Your task to perform on an android device: What's on my calendar today? Image 0: 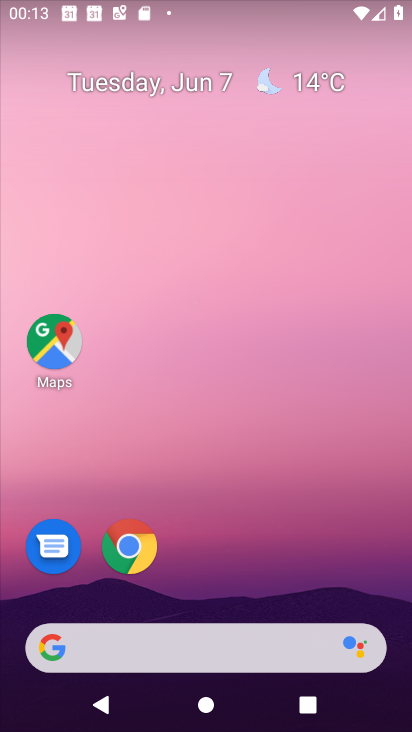
Step 0: drag from (198, 588) to (296, 24)
Your task to perform on an android device: What's on my calendar today? Image 1: 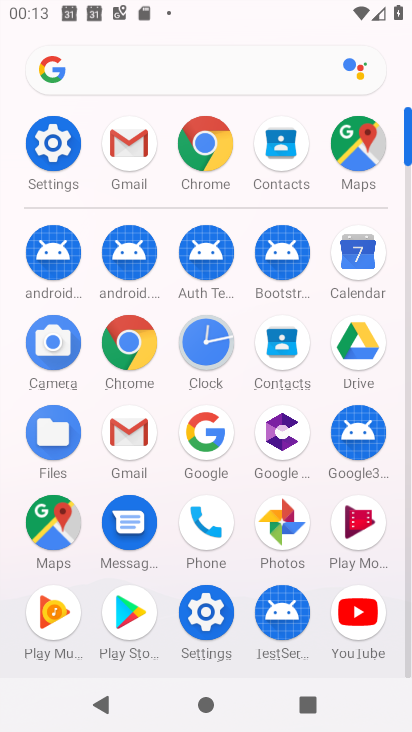
Step 1: click (372, 261)
Your task to perform on an android device: What's on my calendar today? Image 2: 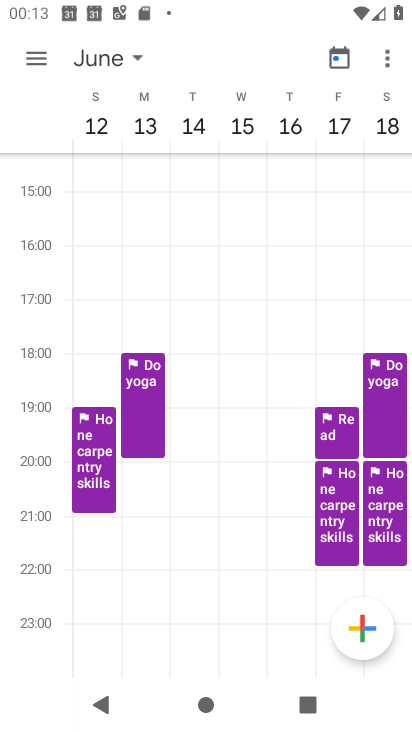
Step 2: drag from (105, 128) to (411, 109)
Your task to perform on an android device: What's on my calendar today? Image 3: 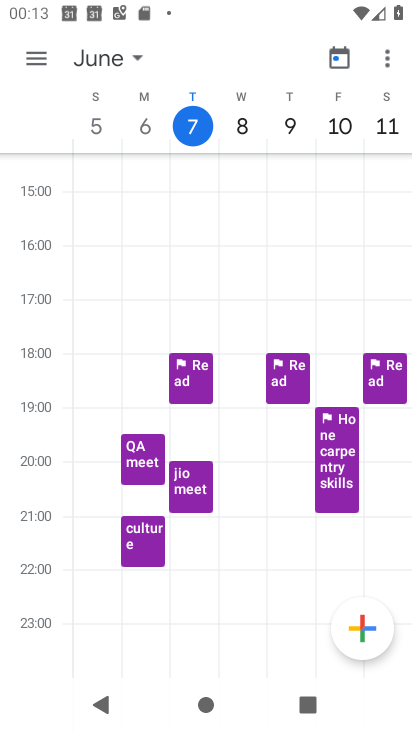
Step 3: click (41, 60)
Your task to perform on an android device: What's on my calendar today? Image 4: 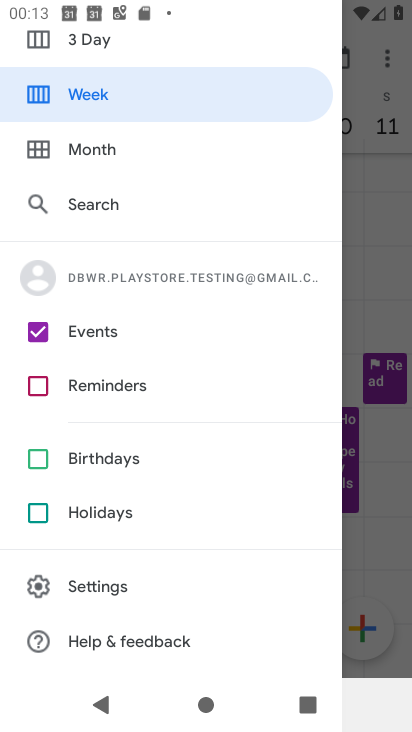
Step 4: drag from (111, 152) to (101, 256)
Your task to perform on an android device: What's on my calendar today? Image 5: 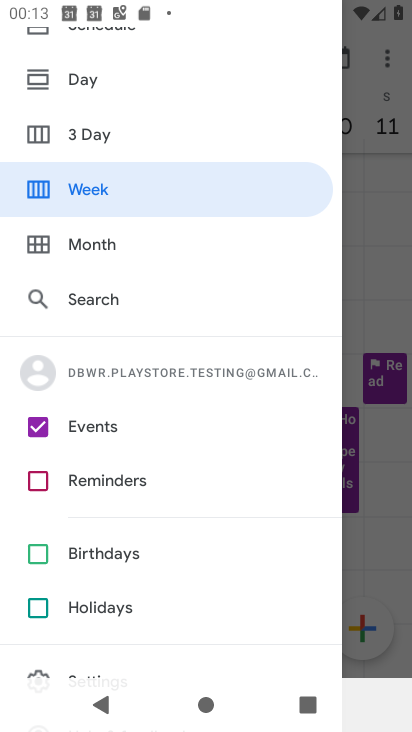
Step 5: click (91, 89)
Your task to perform on an android device: What's on my calendar today? Image 6: 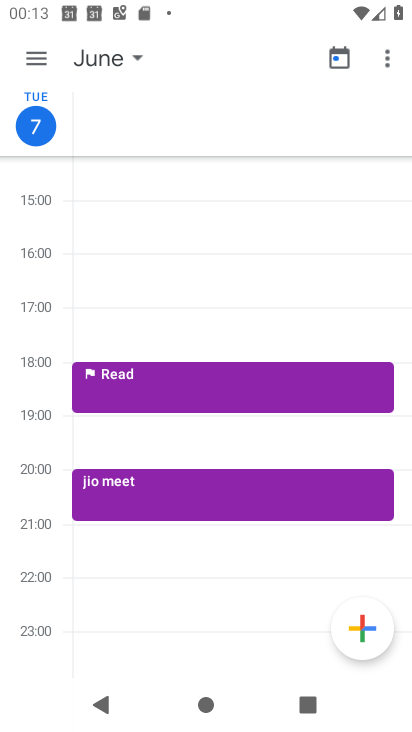
Step 6: task complete